Your task to perform on an android device: When is my next appointment? Image 0: 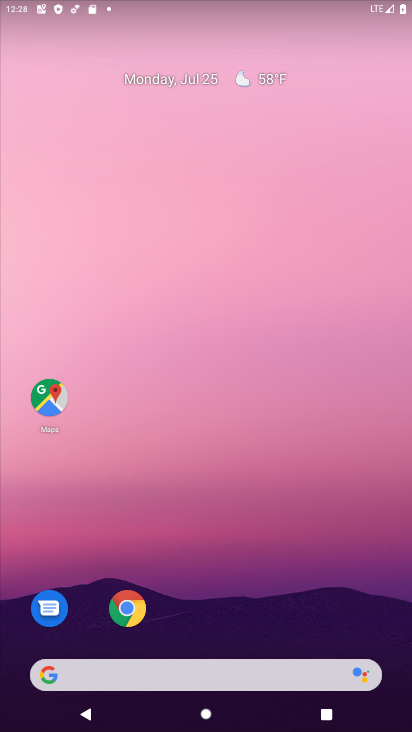
Step 0: drag from (187, 673) to (291, 82)
Your task to perform on an android device: When is my next appointment? Image 1: 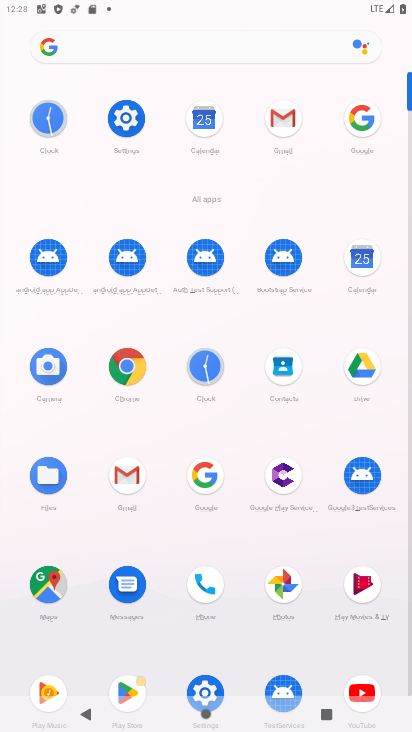
Step 1: click (362, 258)
Your task to perform on an android device: When is my next appointment? Image 2: 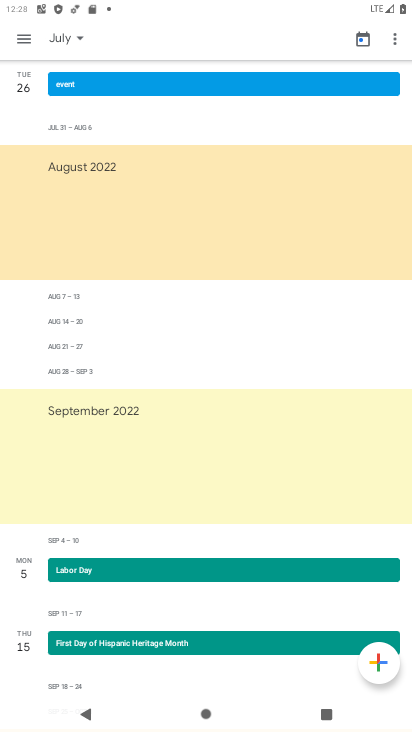
Step 2: click (368, 35)
Your task to perform on an android device: When is my next appointment? Image 3: 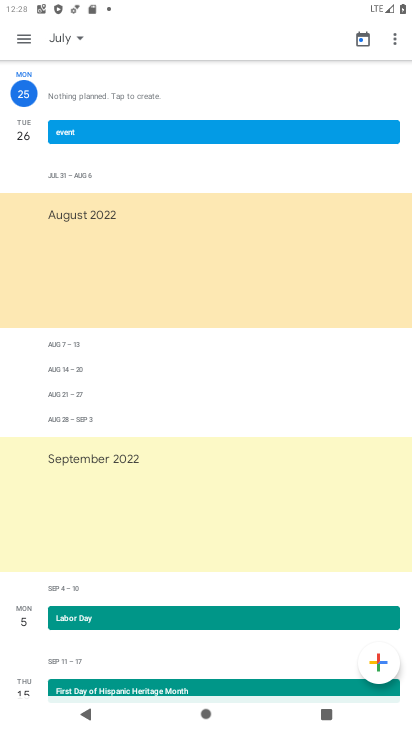
Step 3: click (78, 37)
Your task to perform on an android device: When is my next appointment? Image 4: 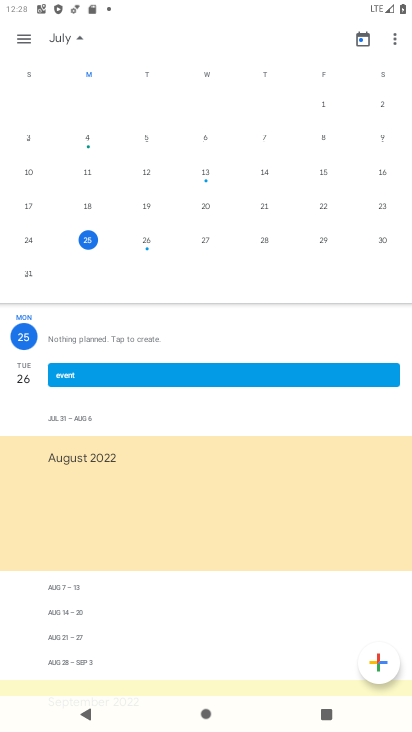
Step 4: click (146, 238)
Your task to perform on an android device: When is my next appointment? Image 5: 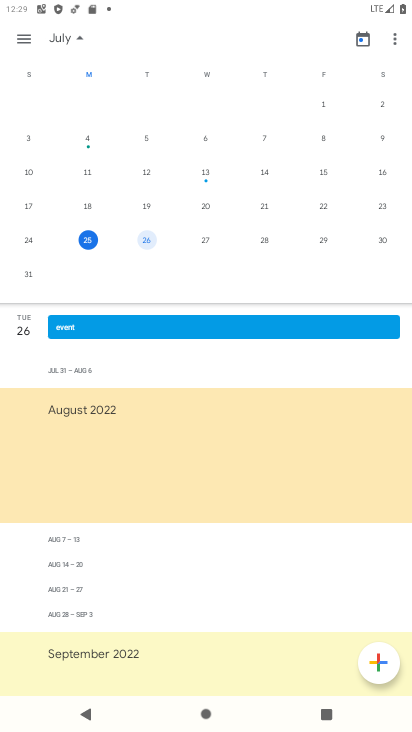
Step 5: task complete